Your task to perform on an android device: change the clock display to analog Image 0: 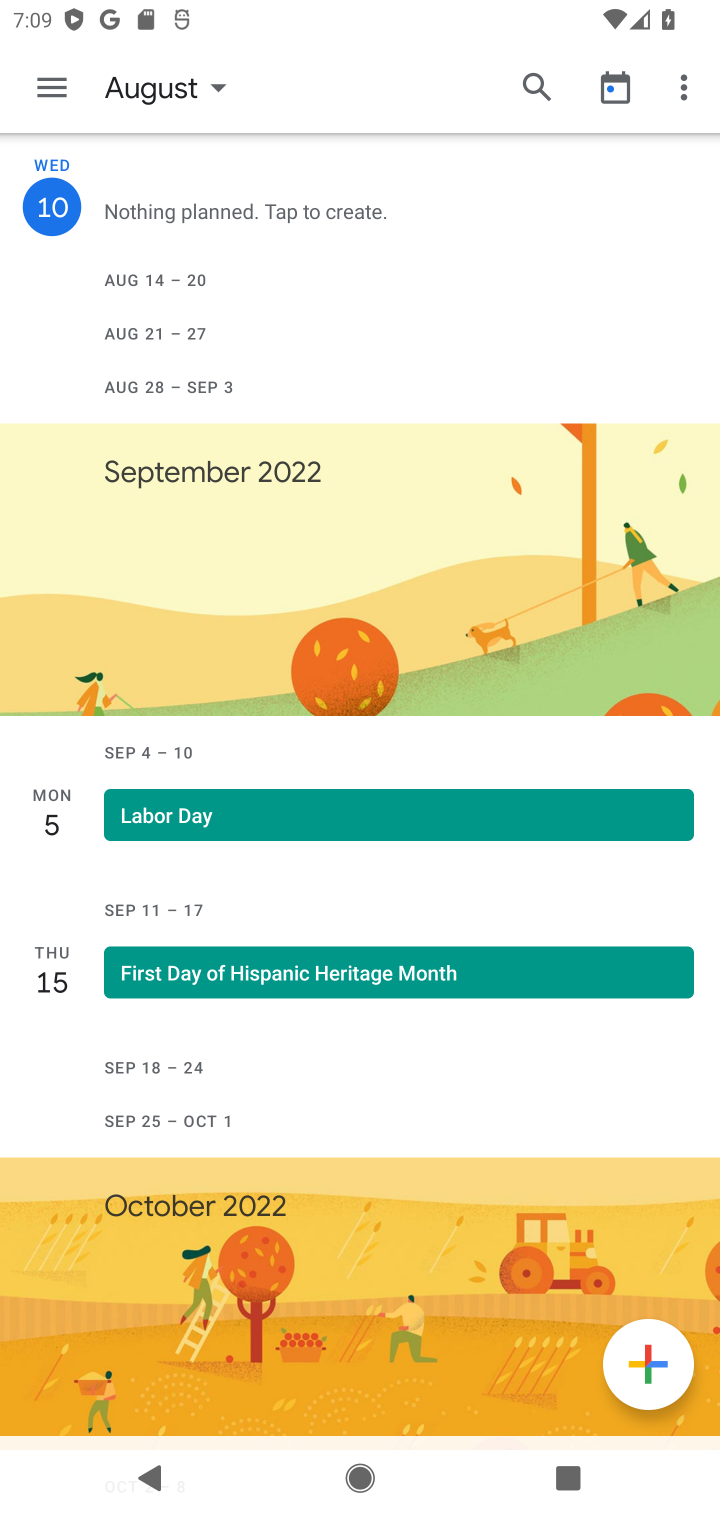
Step 0: press home button
Your task to perform on an android device: change the clock display to analog Image 1: 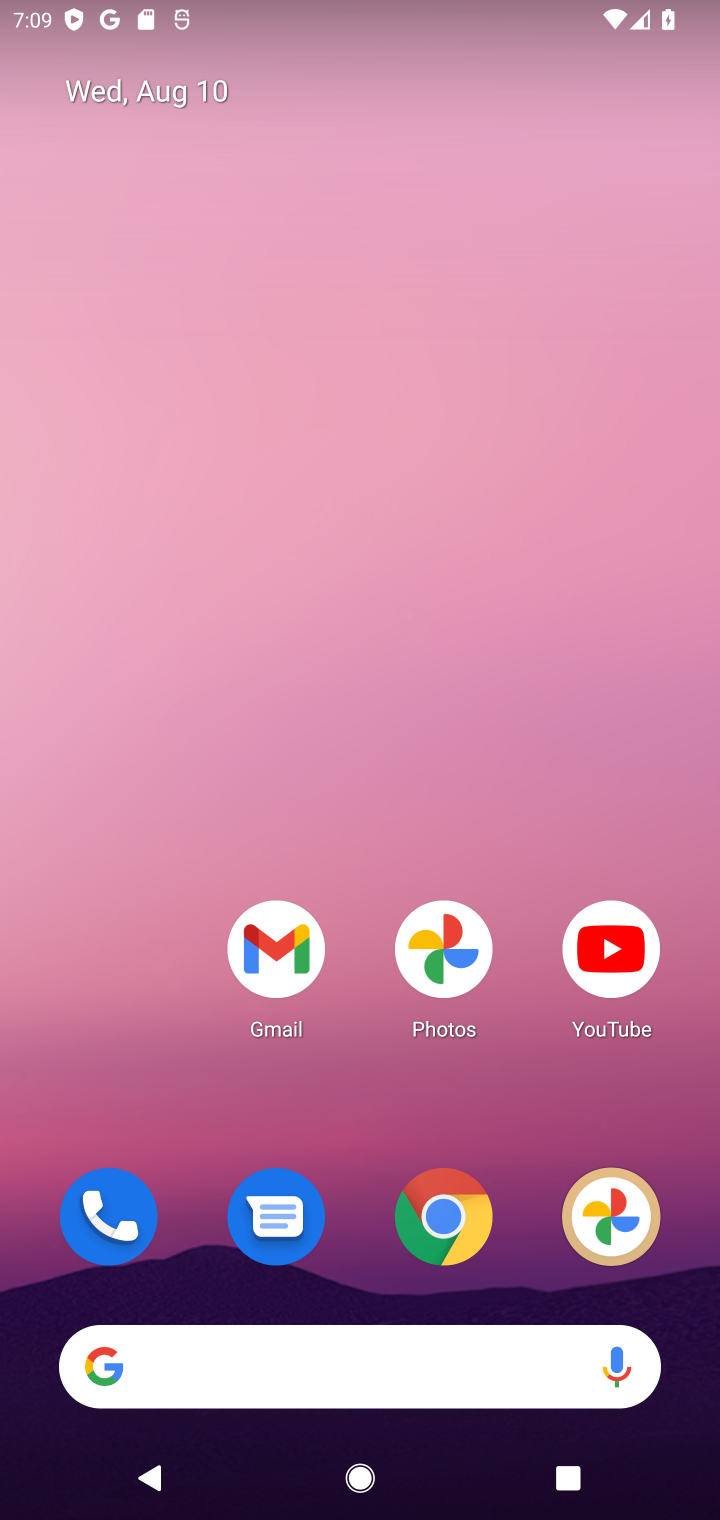
Step 1: drag from (42, 1341) to (586, 205)
Your task to perform on an android device: change the clock display to analog Image 2: 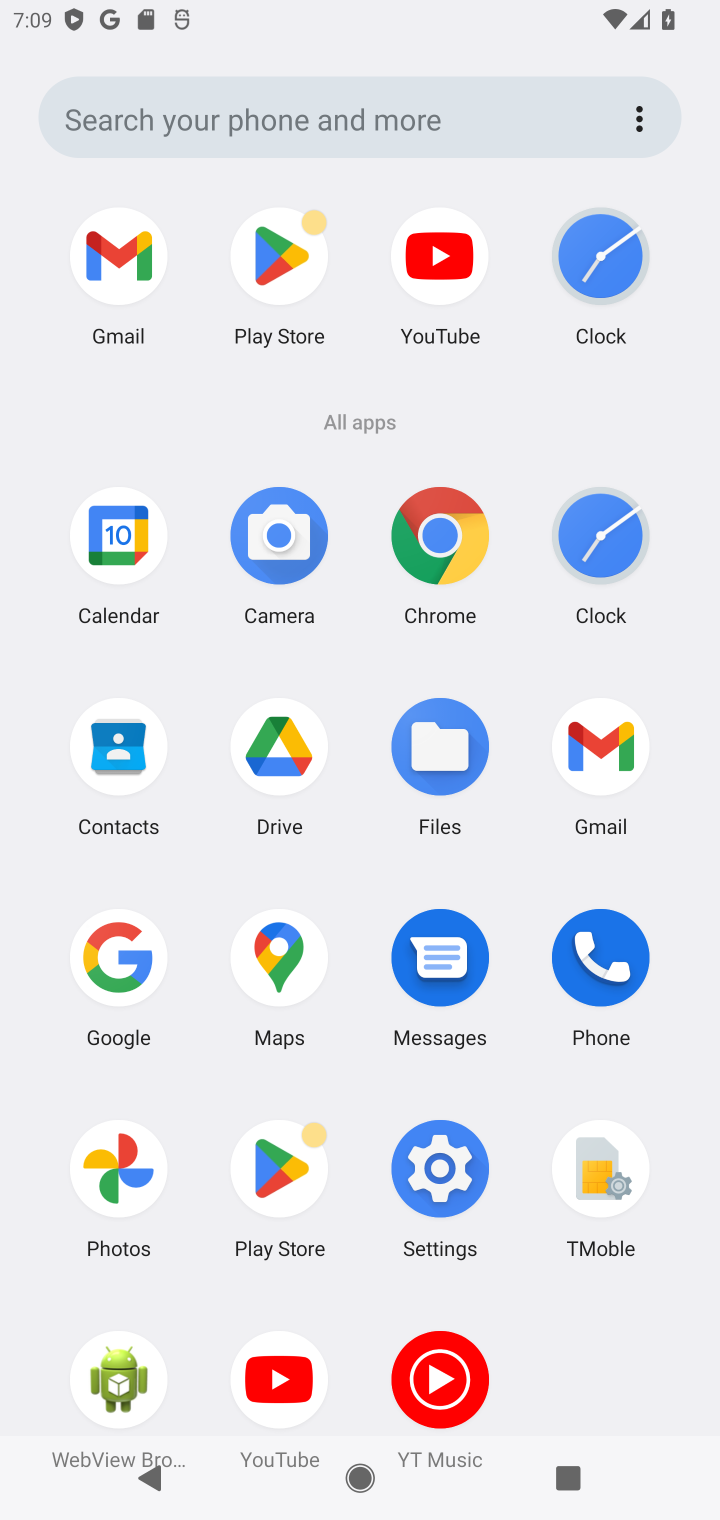
Step 2: click (593, 262)
Your task to perform on an android device: change the clock display to analog Image 3: 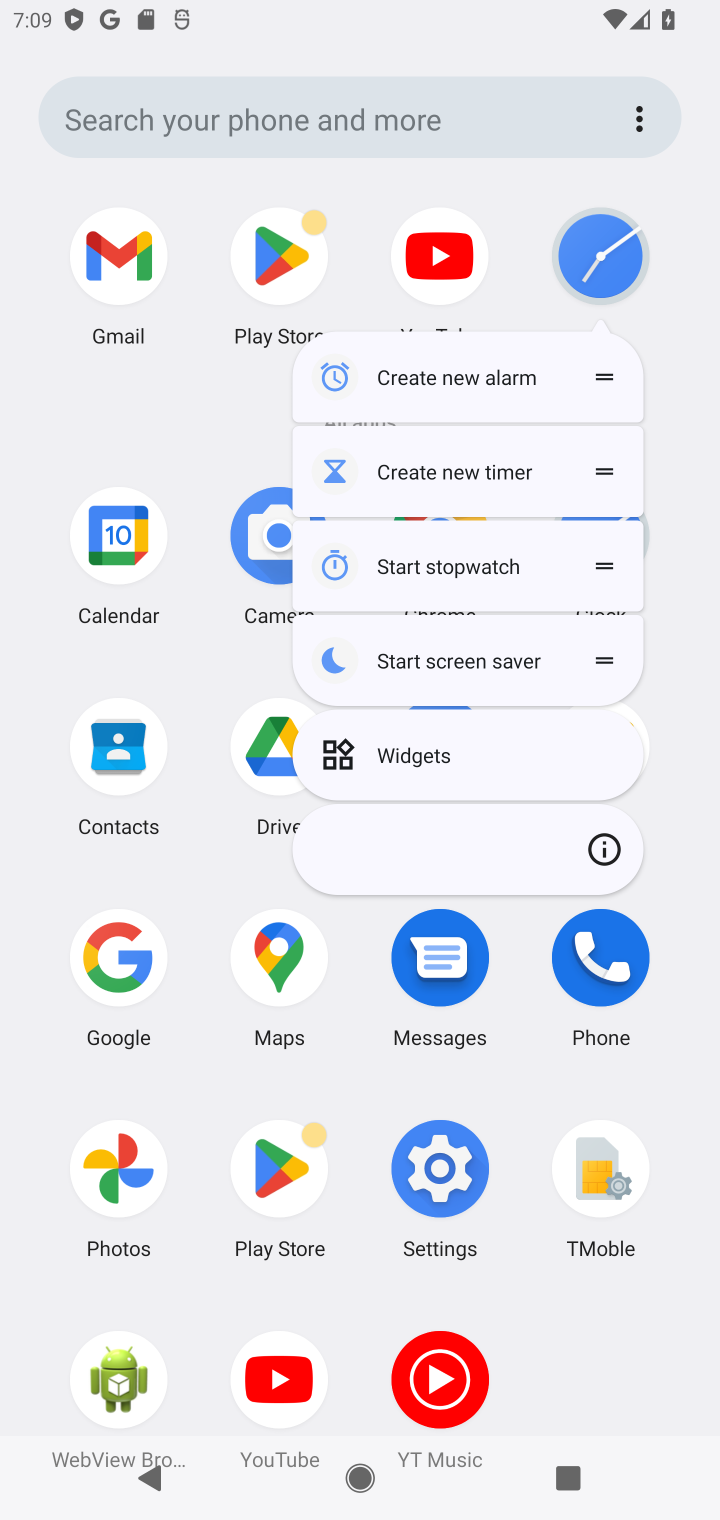
Step 3: click (565, 256)
Your task to perform on an android device: change the clock display to analog Image 4: 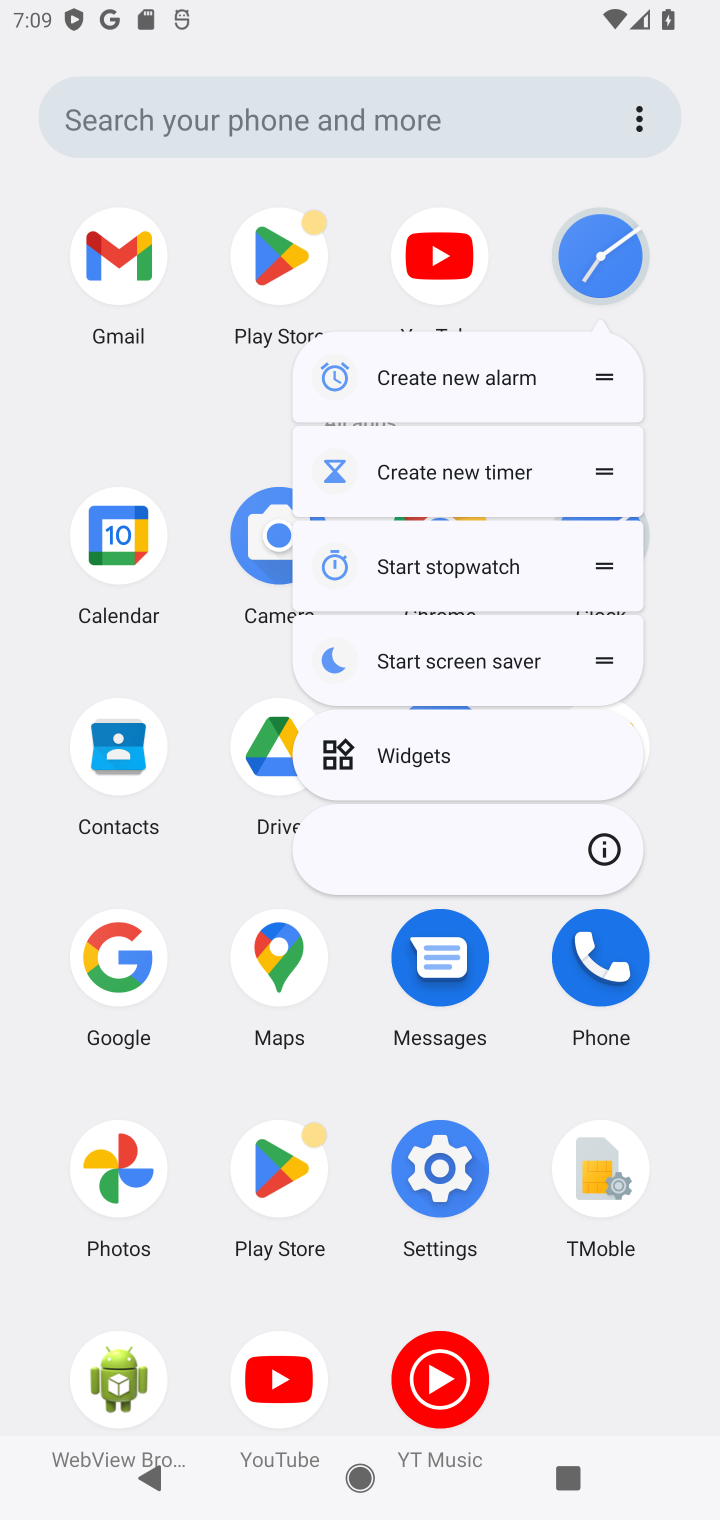
Step 4: click (602, 259)
Your task to perform on an android device: change the clock display to analog Image 5: 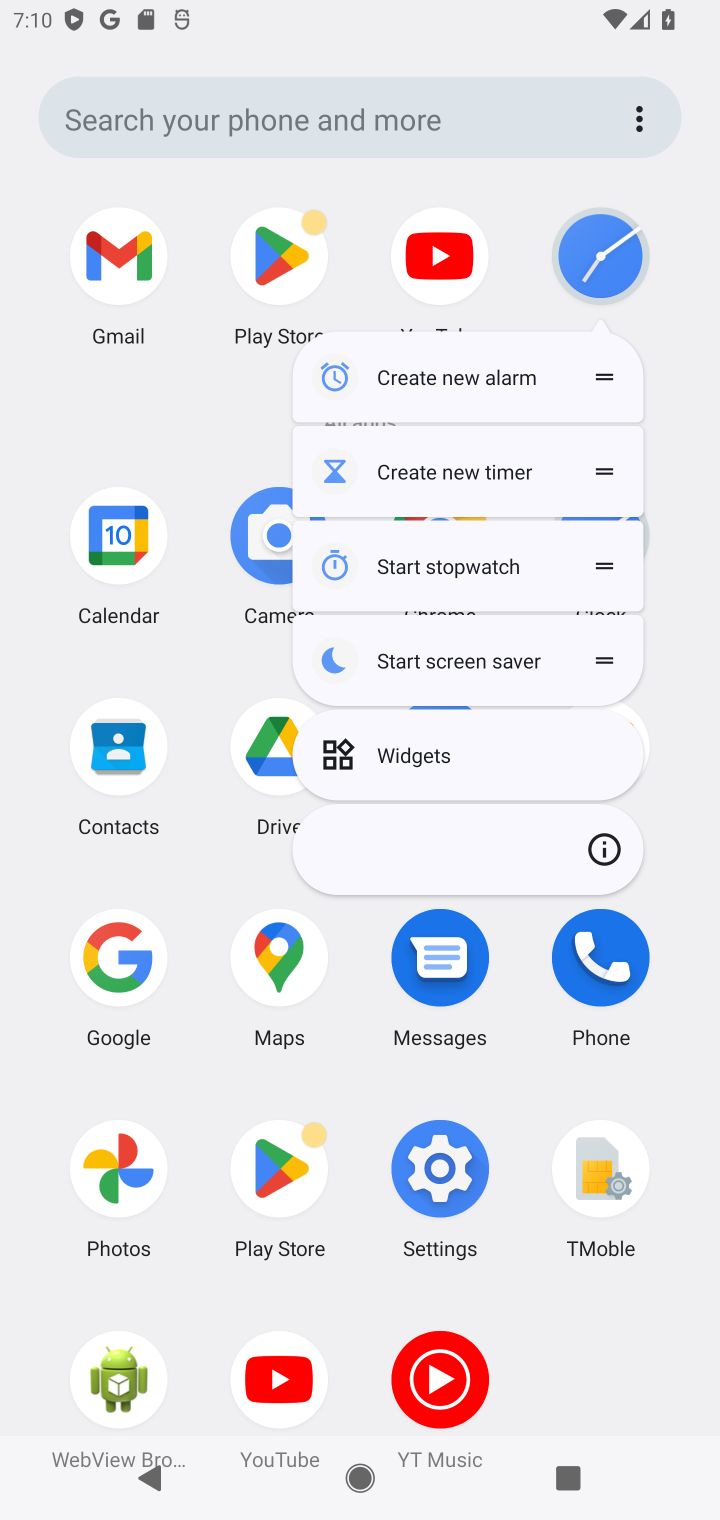
Step 5: click (604, 258)
Your task to perform on an android device: change the clock display to analog Image 6: 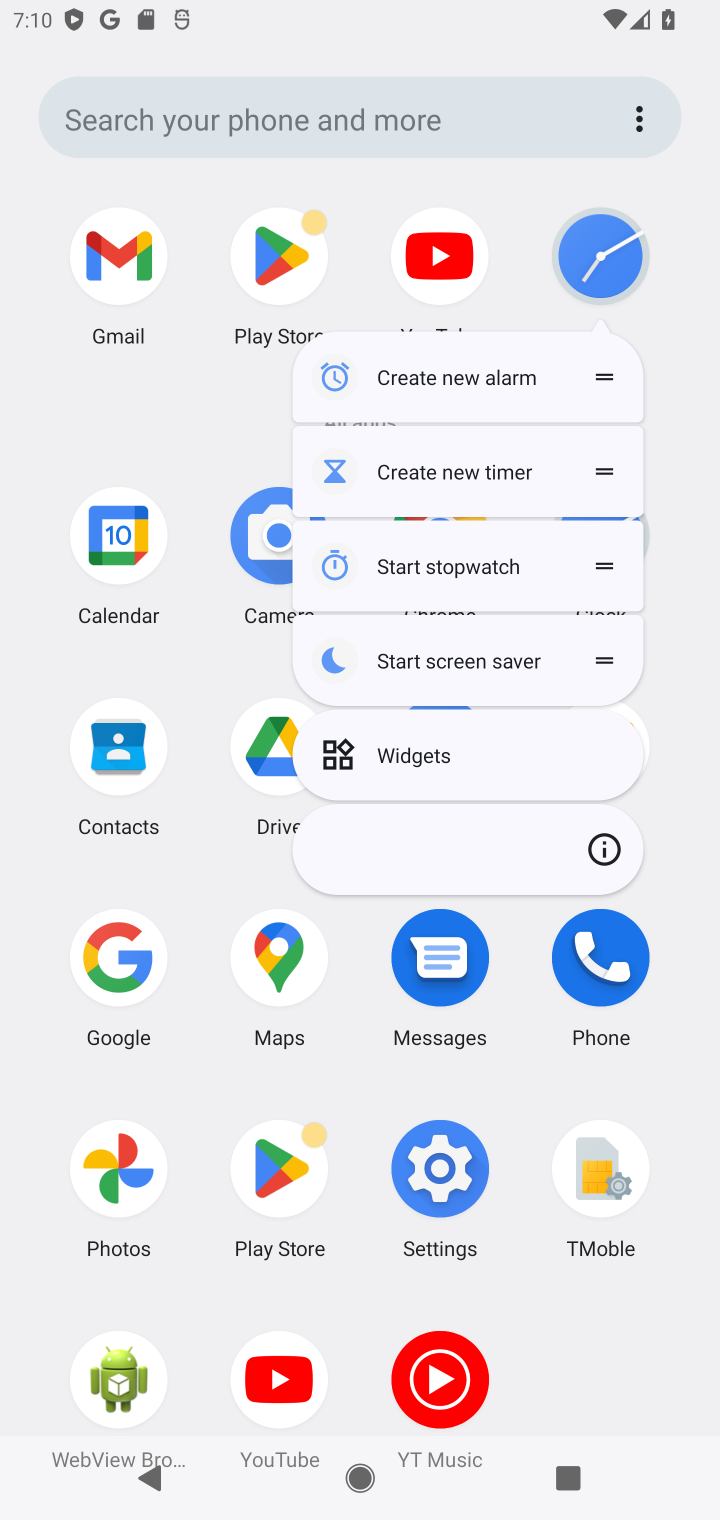
Step 6: click (580, 264)
Your task to perform on an android device: change the clock display to analog Image 7: 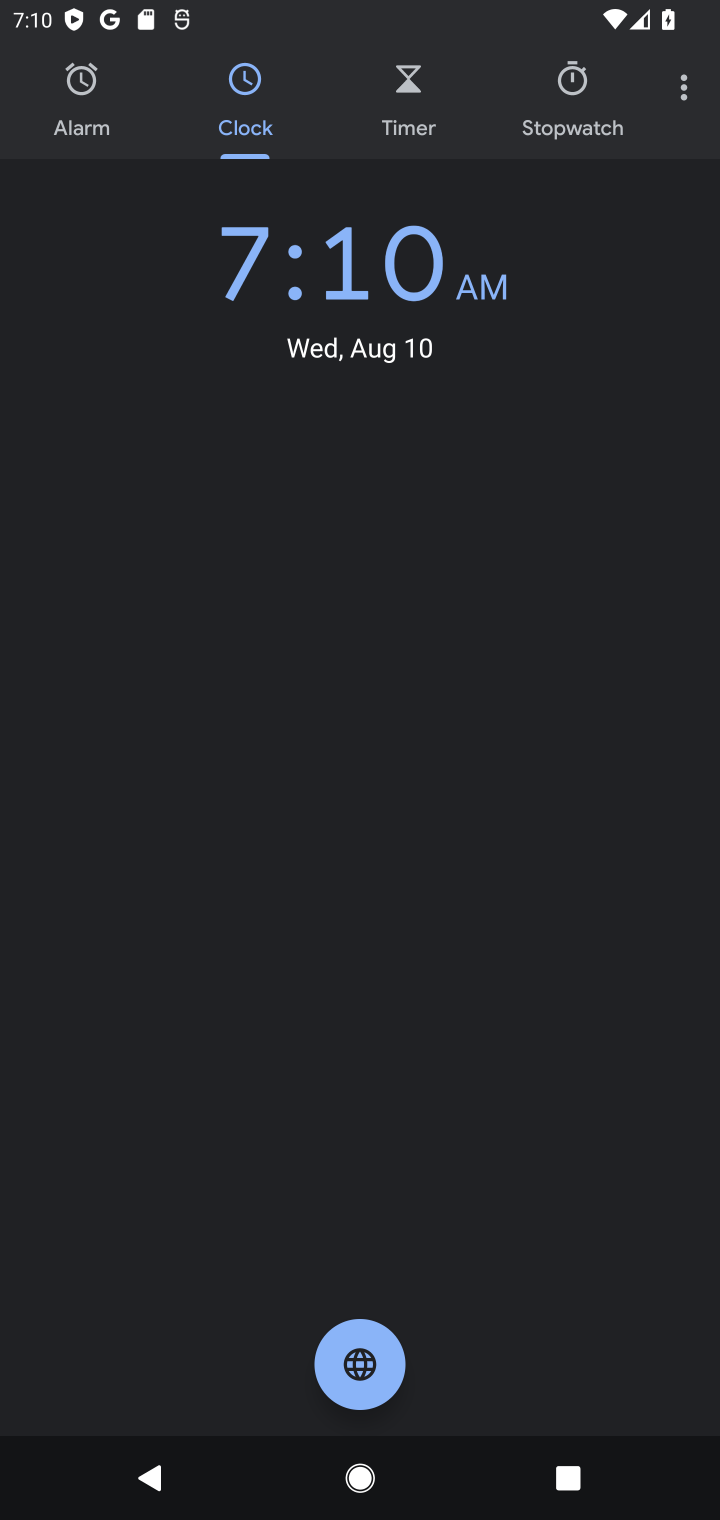
Step 7: click (682, 98)
Your task to perform on an android device: change the clock display to analog Image 8: 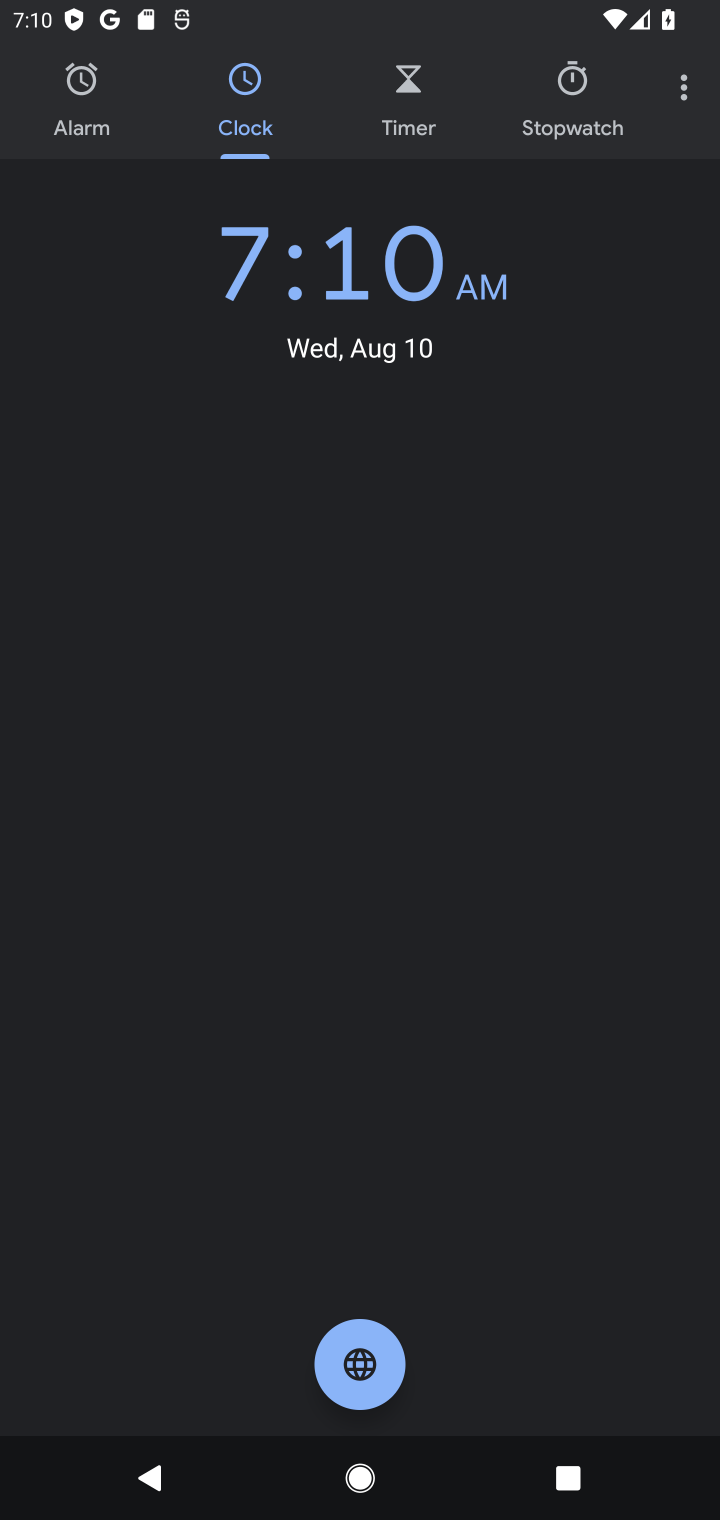
Step 8: click (619, 175)
Your task to perform on an android device: change the clock display to analog Image 9: 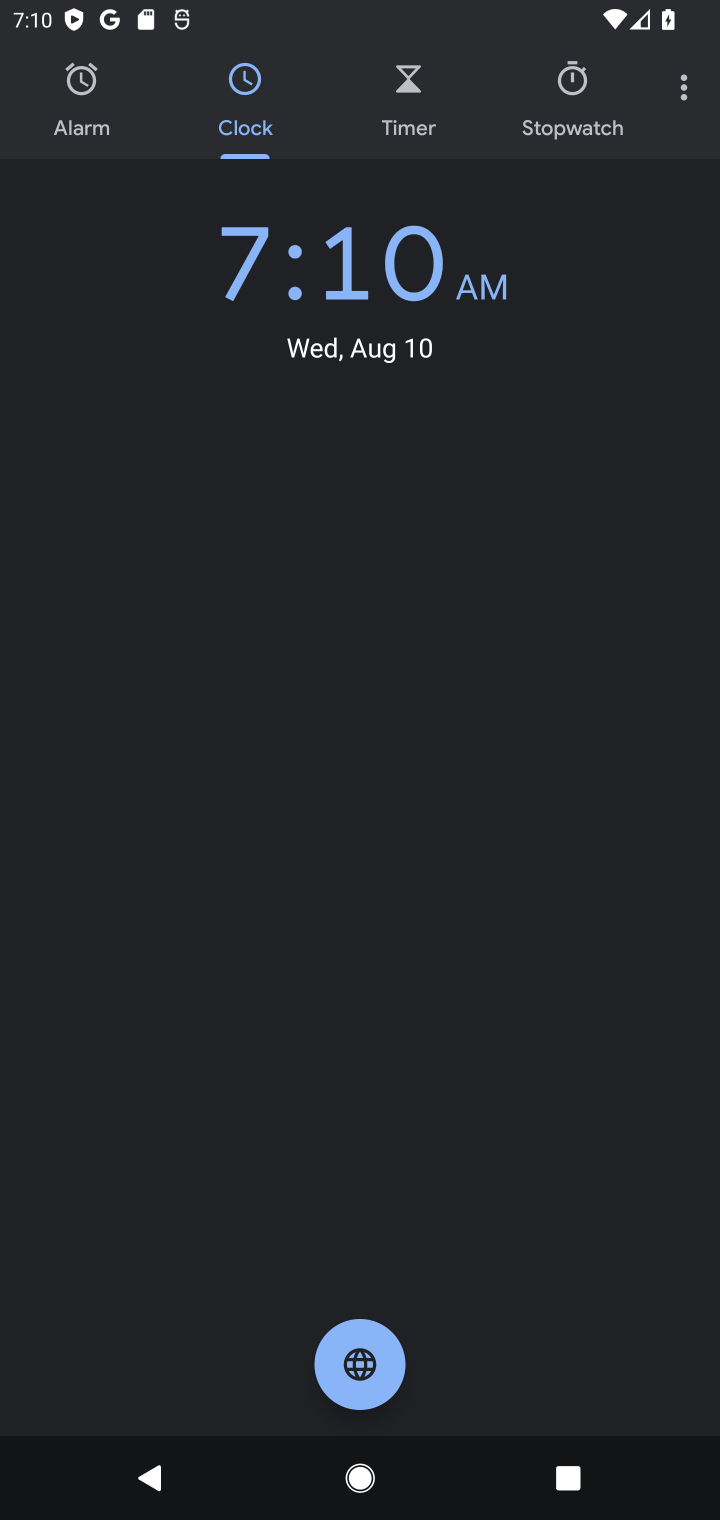
Step 9: click (675, 95)
Your task to perform on an android device: change the clock display to analog Image 10: 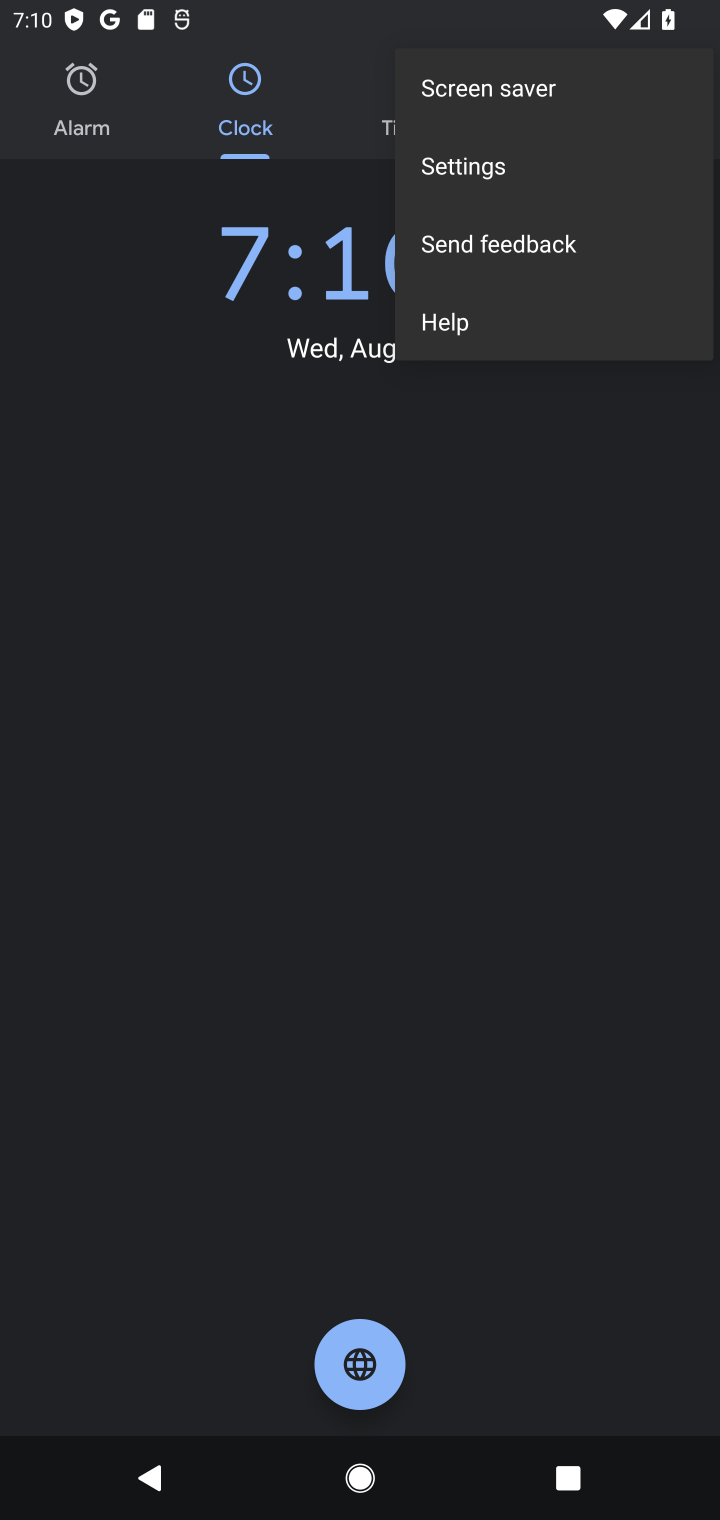
Step 10: click (531, 179)
Your task to perform on an android device: change the clock display to analog Image 11: 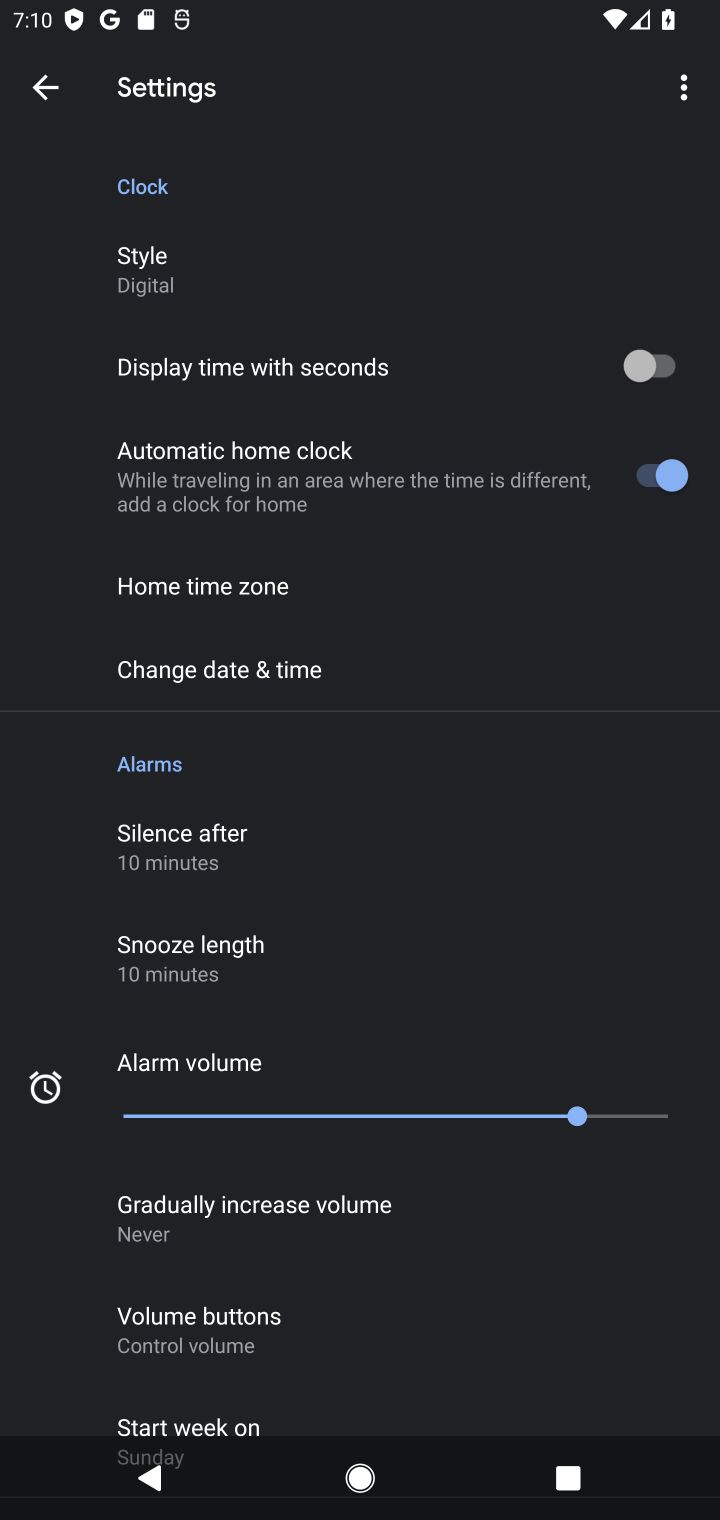
Step 11: click (195, 263)
Your task to perform on an android device: change the clock display to analog Image 12: 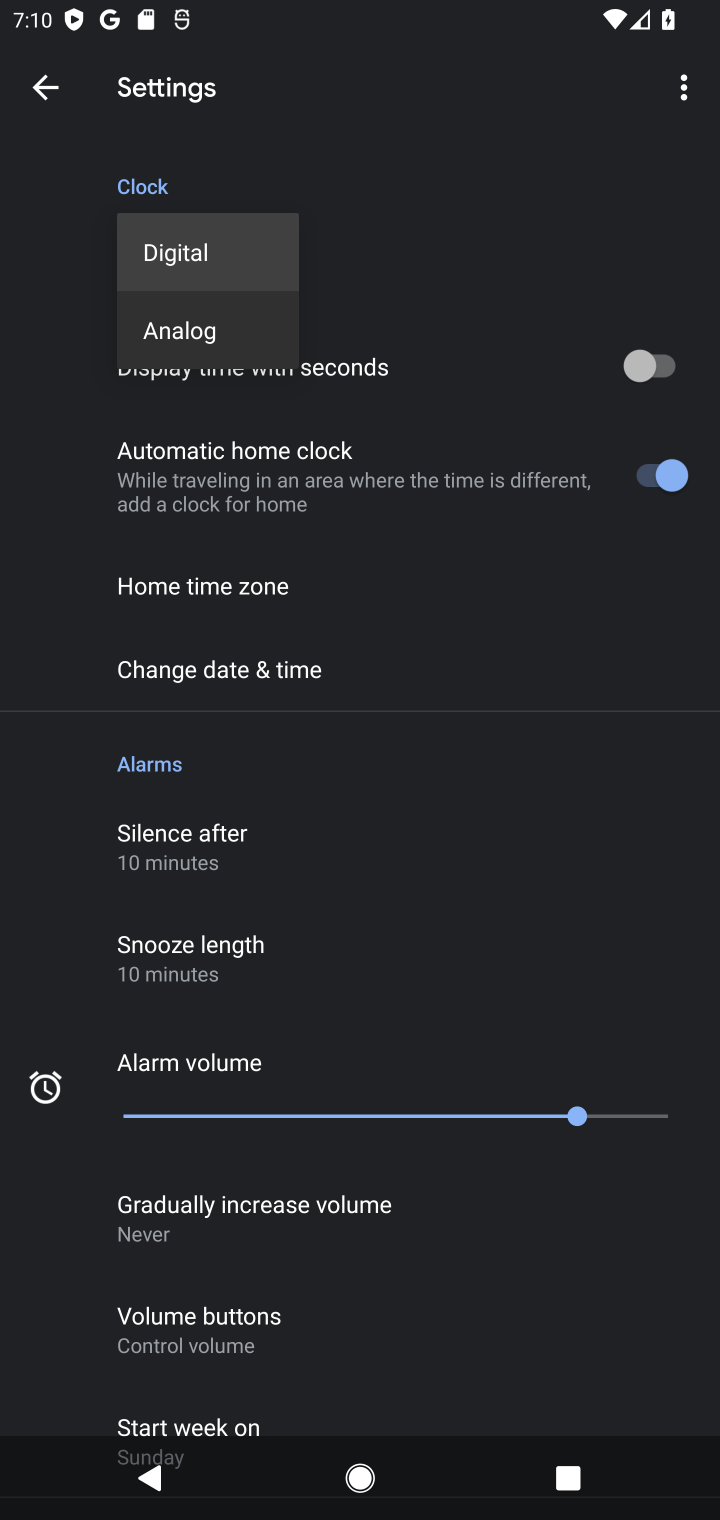
Step 12: click (231, 333)
Your task to perform on an android device: change the clock display to analog Image 13: 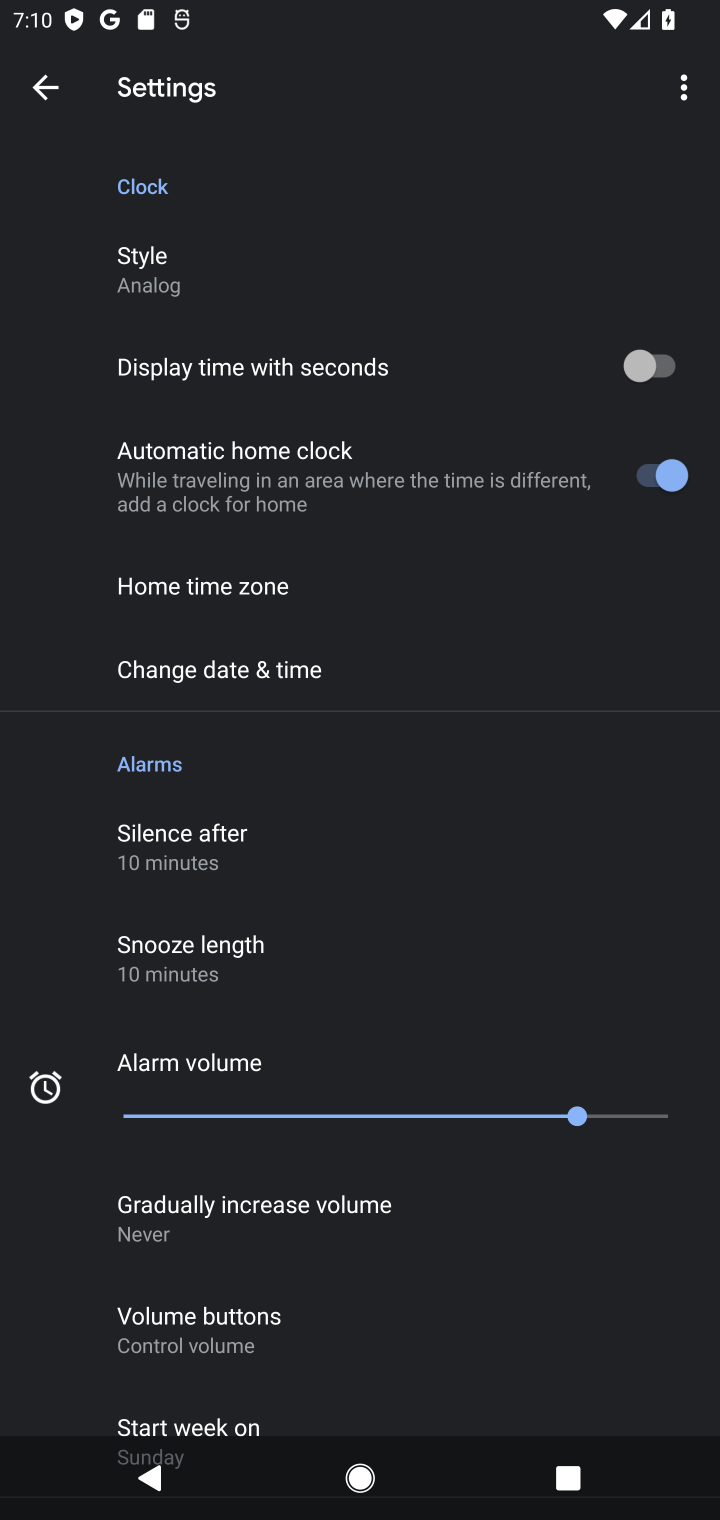
Step 13: task complete